Your task to perform on an android device: open app "Adobe Acrobat Reader: Edit PDF" Image 0: 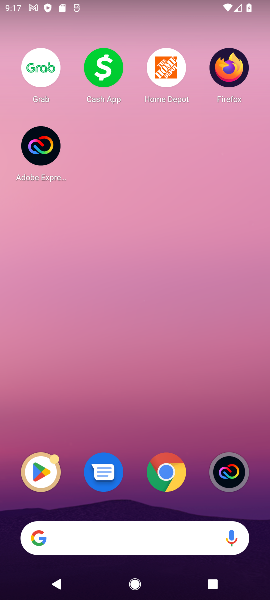
Step 0: drag from (180, 555) to (97, 137)
Your task to perform on an android device: open app "Adobe Acrobat Reader: Edit PDF" Image 1: 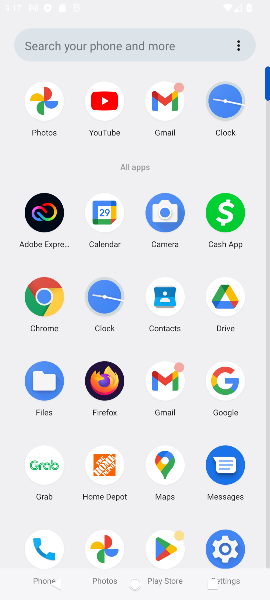
Step 1: drag from (120, 456) to (73, 159)
Your task to perform on an android device: open app "Adobe Acrobat Reader: Edit PDF" Image 2: 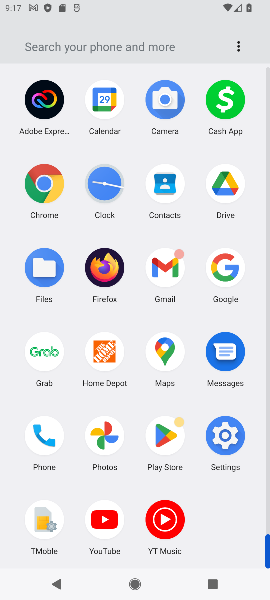
Step 2: click (44, 102)
Your task to perform on an android device: open app "Adobe Acrobat Reader: Edit PDF" Image 3: 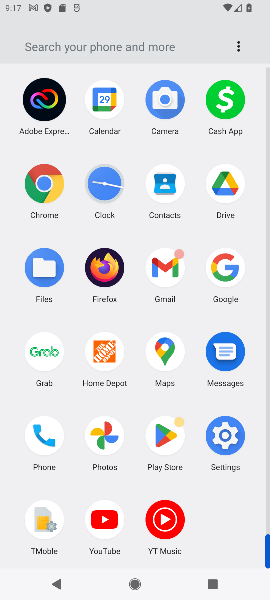
Step 3: click (44, 103)
Your task to perform on an android device: open app "Adobe Acrobat Reader: Edit PDF" Image 4: 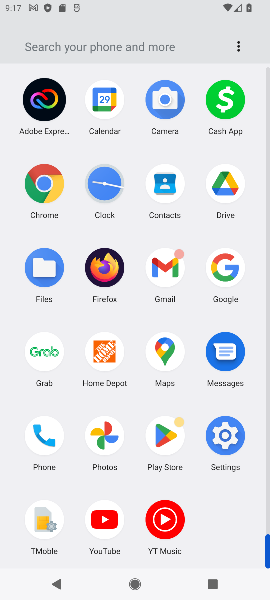
Step 4: click (44, 103)
Your task to perform on an android device: open app "Adobe Acrobat Reader: Edit PDF" Image 5: 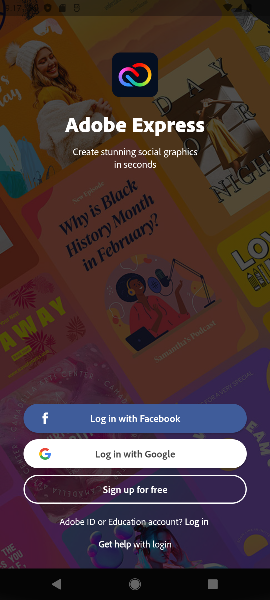
Step 5: click (153, 305)
Your task to perform on an android device: open app "Adobe Acrobat Reader: Edit PDF" Image 6: 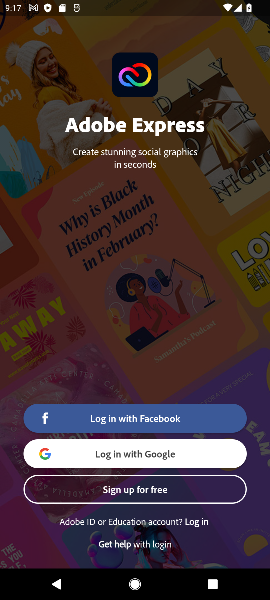
Step 6: task complete